Your task to perform on an android device: Open calendar and show me the first week of next month Image 0: 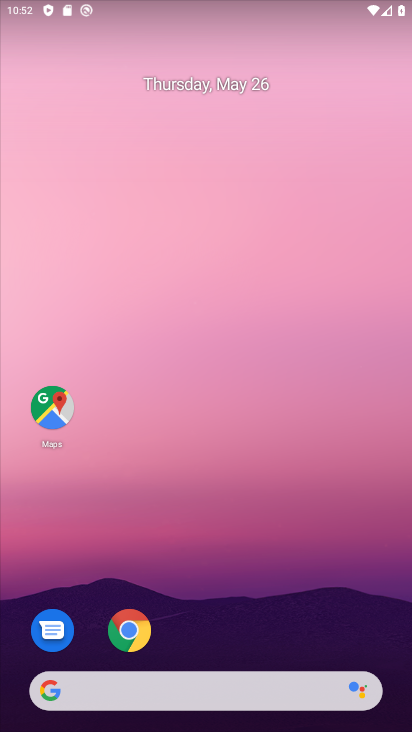
Step 0: drag from (255, 607) to (193, 82)
Your task to perform on an android device: Open calendar and show me the first week of next month Image 1: 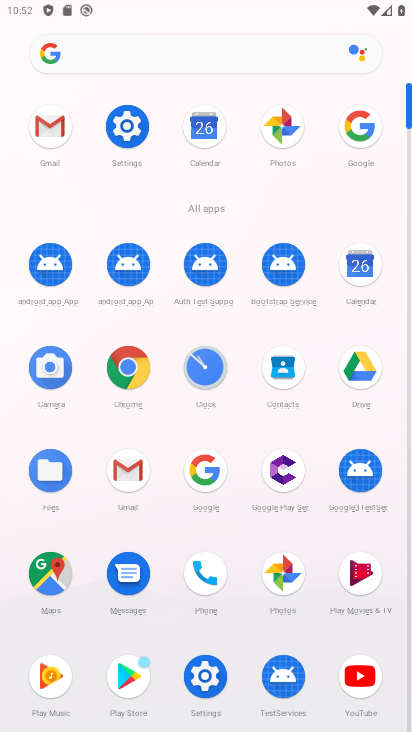
Step 1: click (362, 266)
Your task to perform on an android device: Open calendar and show me the first week of next month Image 2: 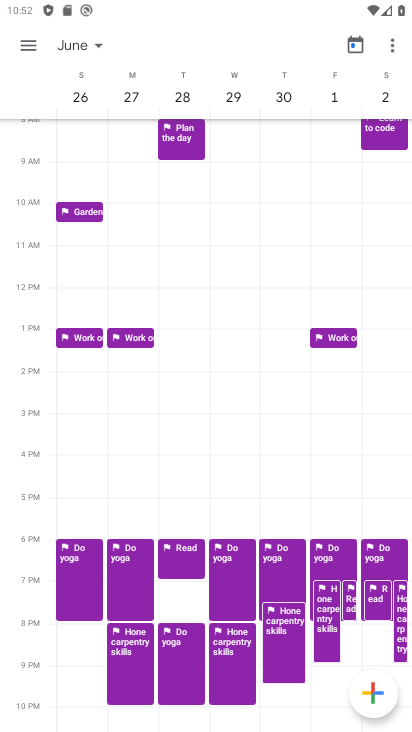
Step 2: click (358, 45)
Your task to perform on an android device: Open calendar and show me the first week of next month Image 3: 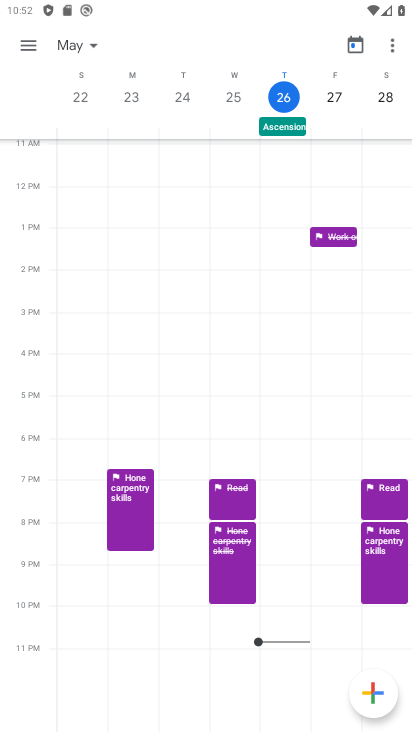
Step 3: click (101, 40)
Your task to perform on an android device: Open calendar and show me the first week of next month Image 4: 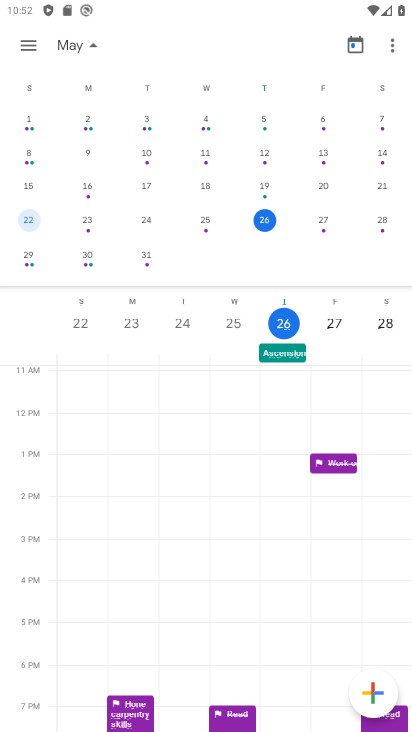
Step 4: drag from (362, 233) to (2, 213)
Your task to perform on an android device: Open calendar and show me the first week of next month Image 5: 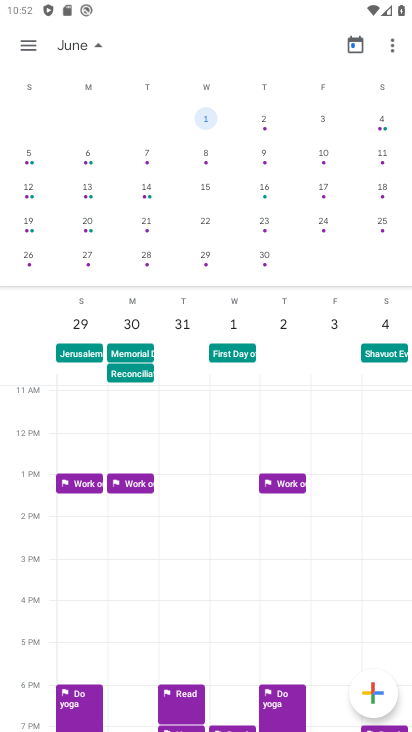
Step 5: click (93, 152)
Your task to perform on an android device: Open calendar and show me the first week of next month Image 6: 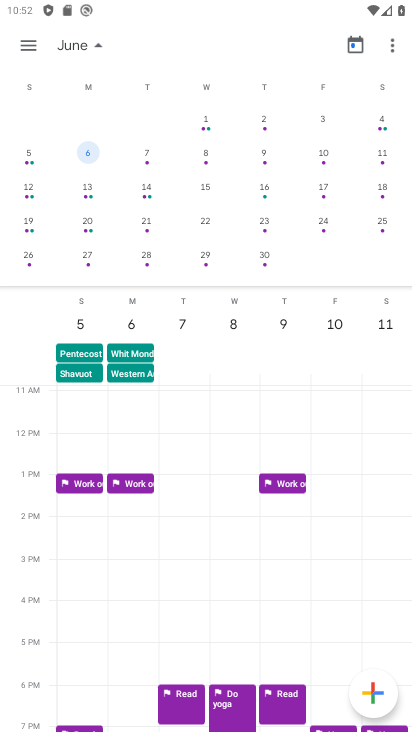
Step 6: click (22, 47)
Your task to perform on an android device: Open calendar and show me the first week of next month Image 7: 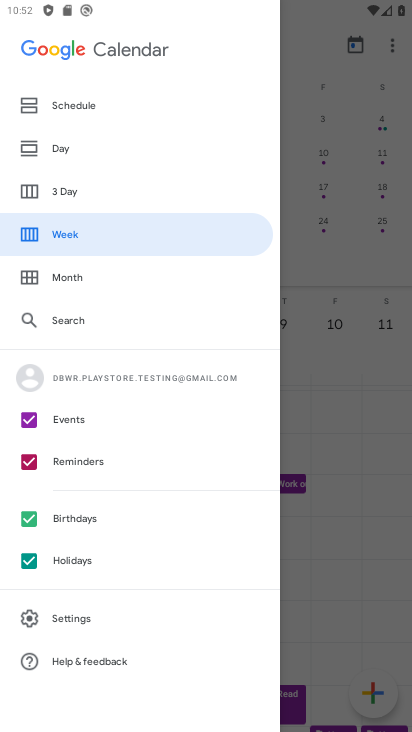
Step 7: click (60, 241)
Your task to perform on an android device: Open calendar and show me the first week of next month Image 8: 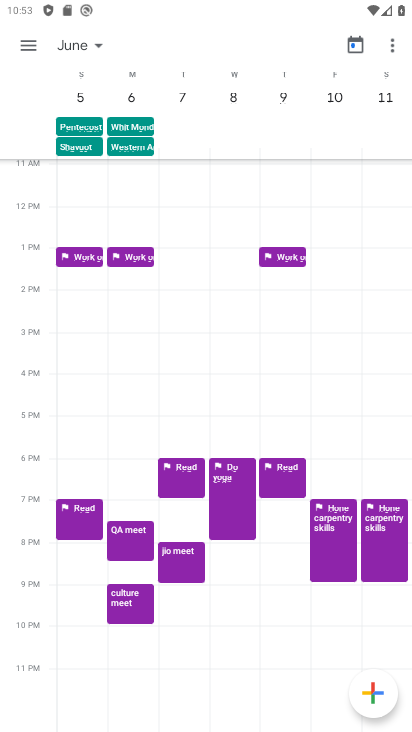
Step 8: task complete